Your task to perform on an android device: visit the assistant section in the google photos Image 0: 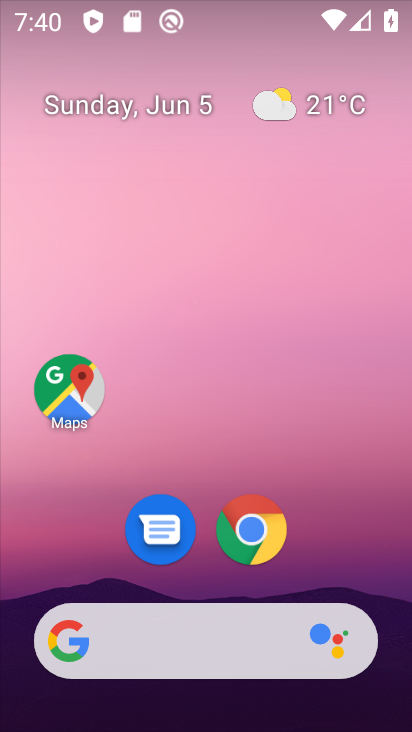
Step 0: drag from (220, 719) to (348, 14)
Your task to perform on an android device: visit the assistant section in the google photos Image 1: 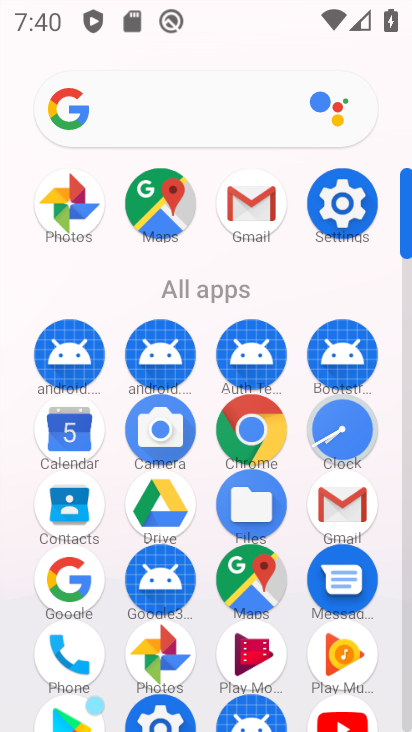
Step 1: click (73, 199)
Your task to perform on an android device: visit the assistant section in the google photos Image 2: 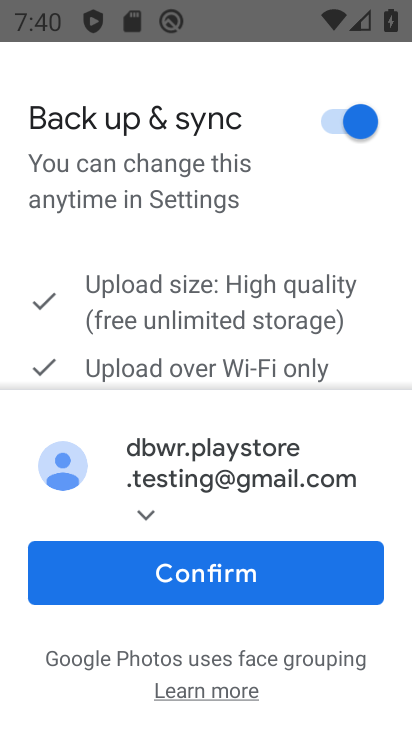
Step 2: click (212, 558)
Your task to perform on an android device: visit the assistant section in the google photos Image 3: 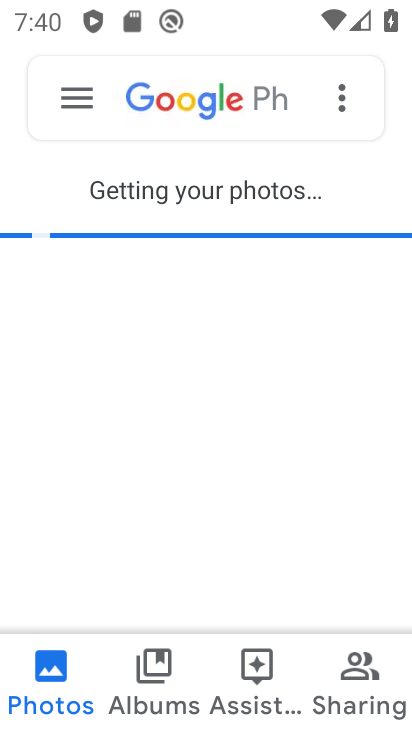
Step 3: click (36, 97)
Your task to perform on an android device: visit the assistant section in the google photos Image 4: 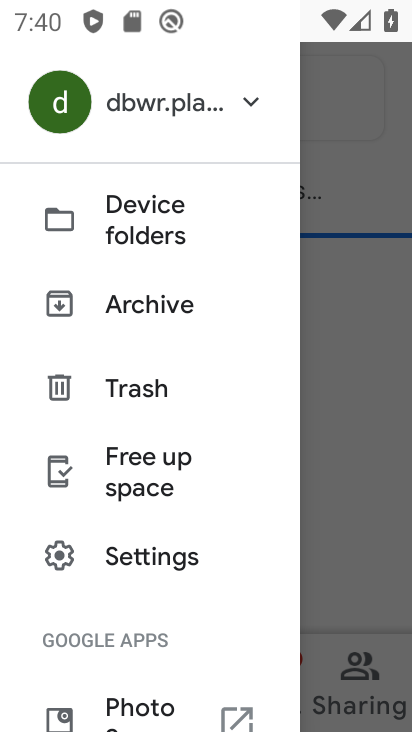
Step 4: click (344, 408)
Your task to perform on an android device: visit the assistant section in the google photos Image 5: 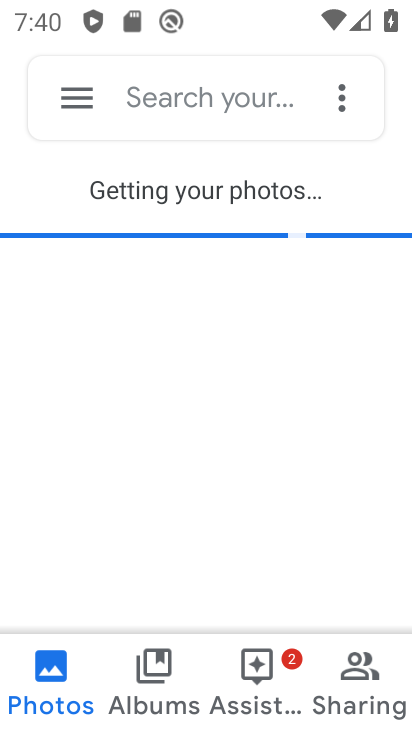
Step 5: click (262, 685)
Your task to perform on an android device: visit the assistant section in the google photos Image 6: 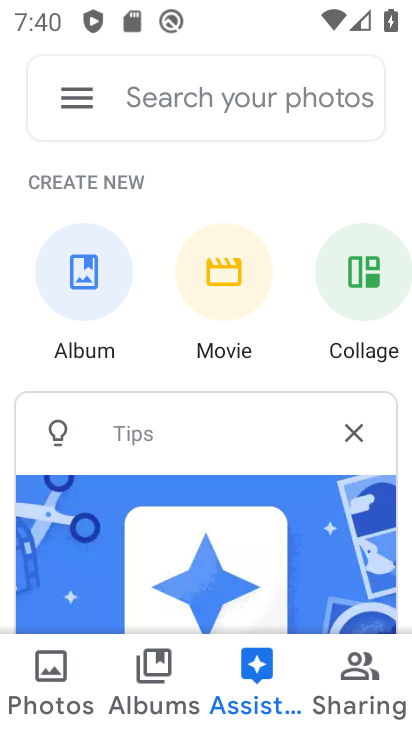
Step 6: task complete